Your task to perform on an android device: open a new tab in the chrome app Image 0: 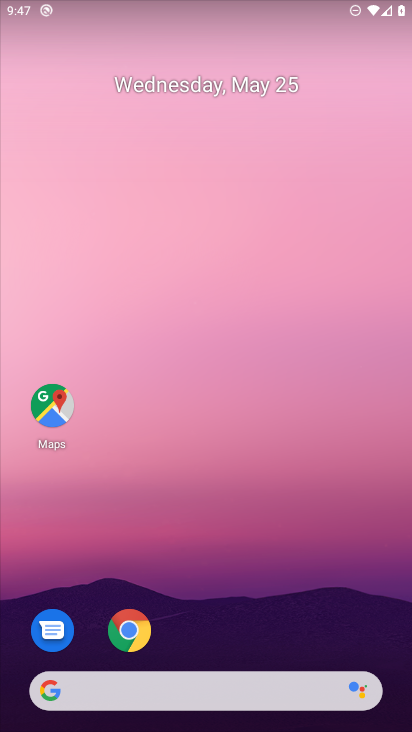
Step 0: click (136, 638)
Your task to perform on an android device: open a new tab in the chrome app Image 1: 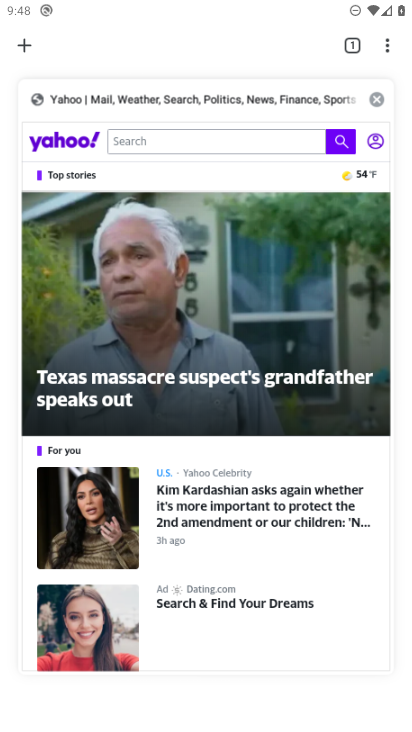
Step 1: click (387, 41)
Your task to perform on an android device: open a new tab in the chrome app Image 2: 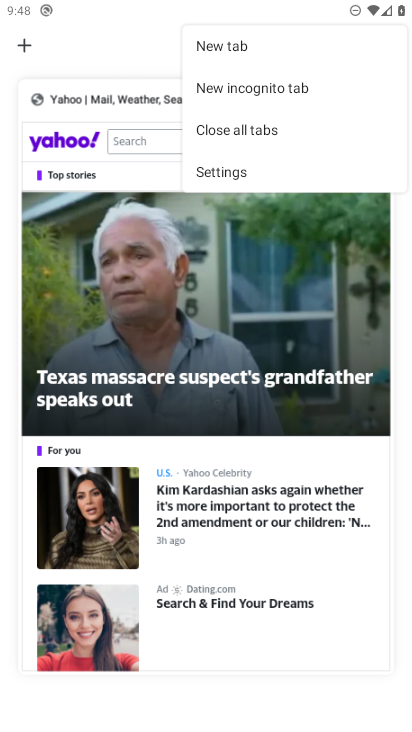
Step 2: click (249, 45)
Your task to perform on an android device: open a new tab in the chrome app Image 3: 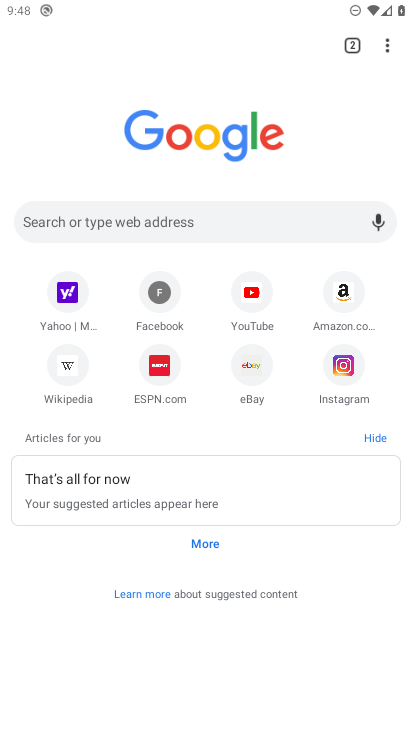
Step 3: task complete